Your task to perform on an android device: Check the news Image 0: 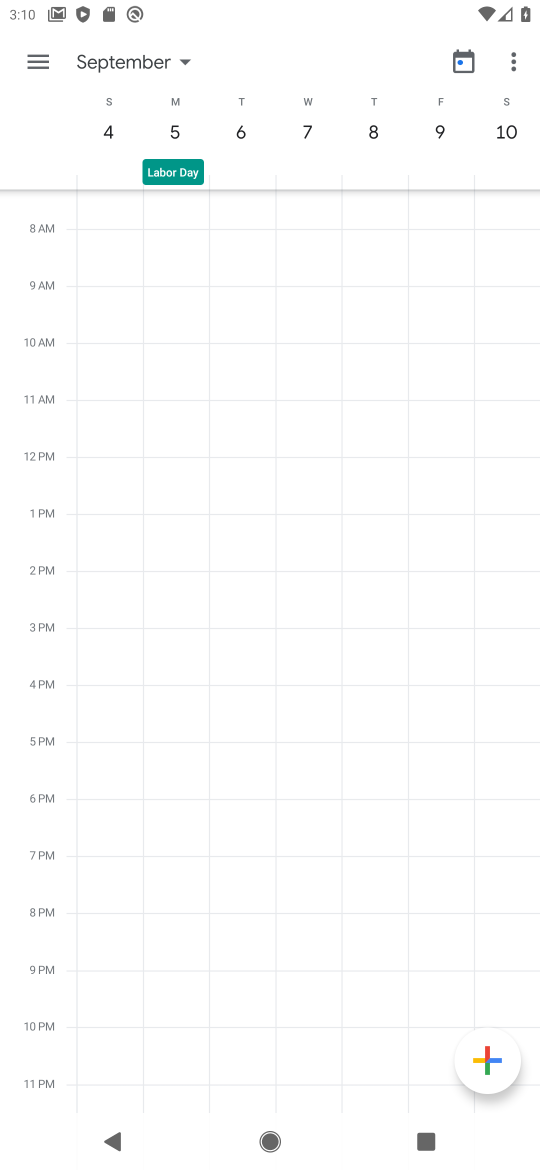
Step 0: press home button
Your task to perform on an android device: Check the news Image 1: 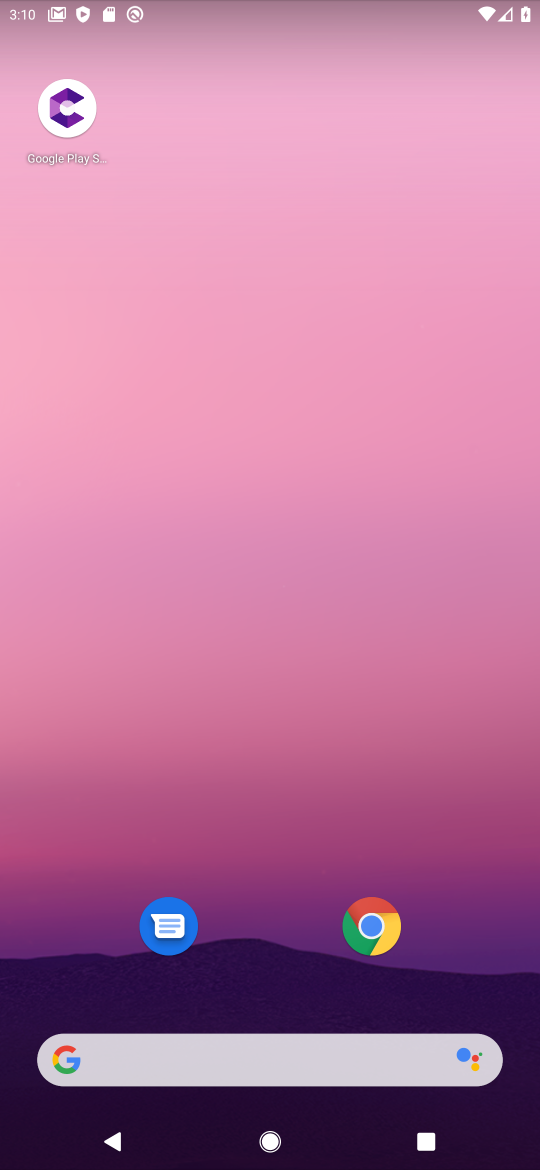
Step 1: drag from (327, 1020) to (271, 84)
Your task to perform on an android device: Check the news Image 2: 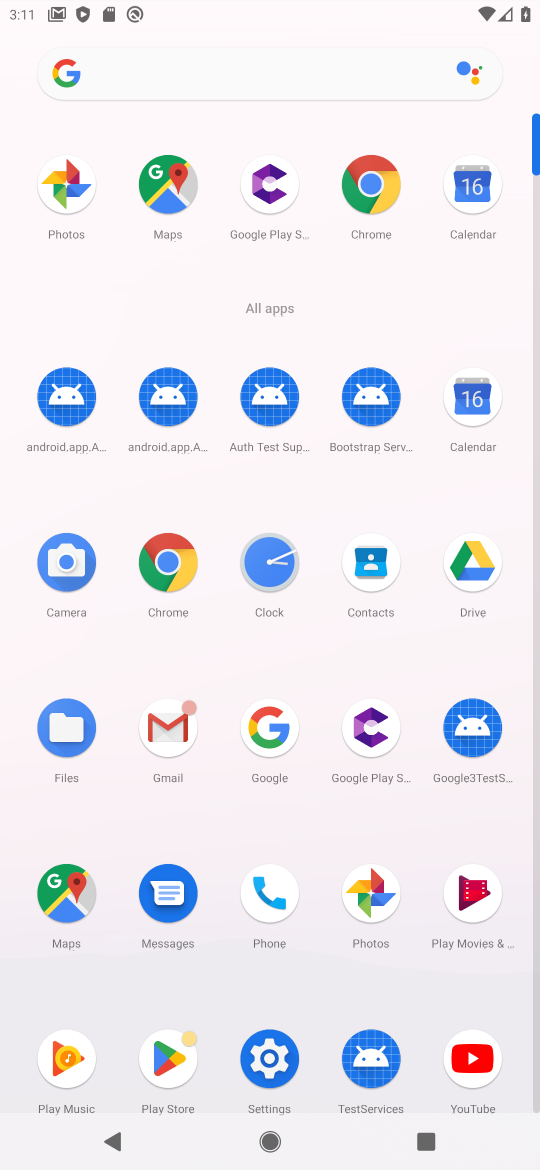
Step 2: click (266, 738)
Your task to perform on an android device: Check the news Image 3: 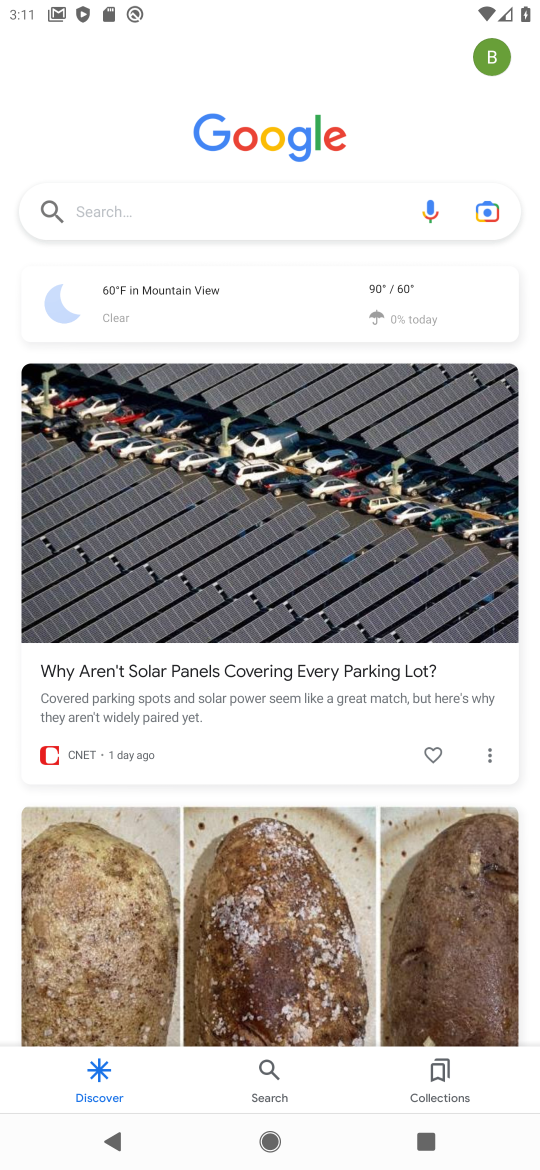
Step 3: task complete